Your task to perform on an android device: turn on the 24-hour format for clock Image 0: 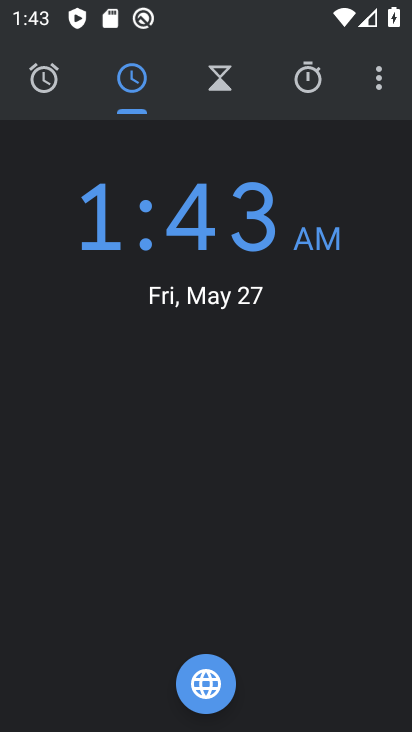
Step 0: click (371, 88)
Your task to perform on an android device: turn on the 24-hour format for clock Image 1: 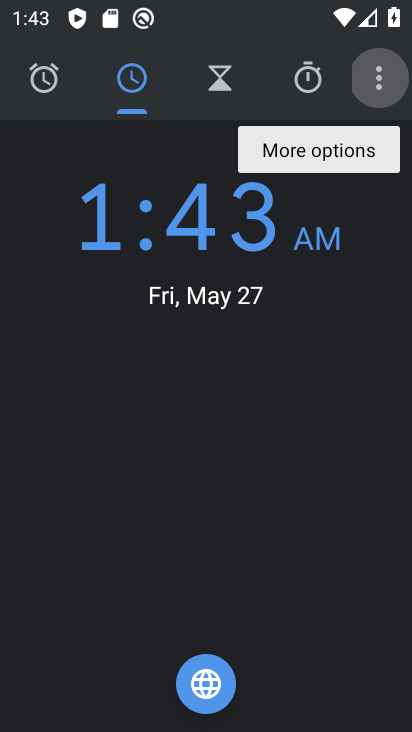
Step 1: click (371, 88)
Your task to perform on an android device: turn on the 24-hour format for clock Image 2: 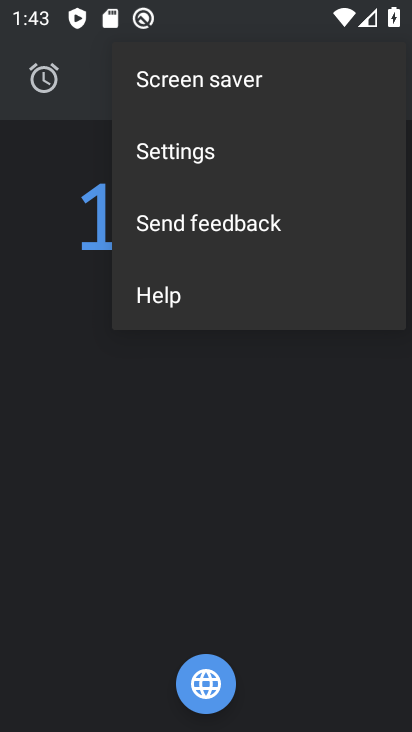
Step 2: click (294, 155)
Your task to perform on an android device: turn on the 24-hour format for clock Image 3: 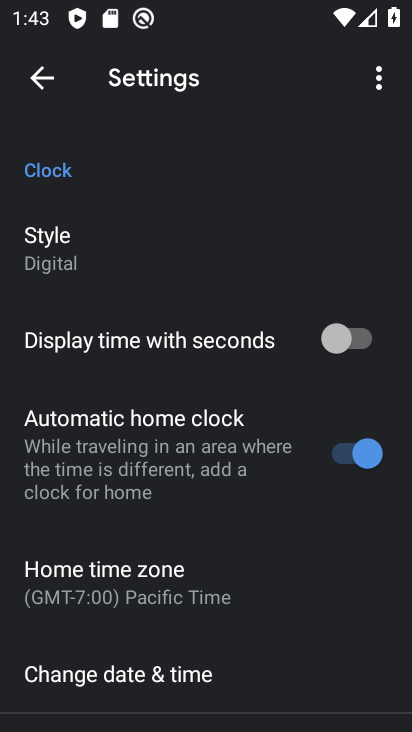
Step 3: click (216, 692)
Your task to perform on an android device: turn on the 24-hour format for clock Image 4: 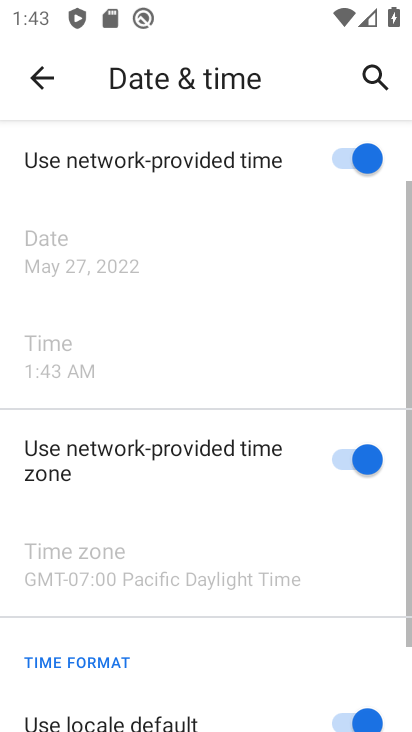
Step 4: drag from (91, 667) to (222, 184)
Your task to perform on an android device: turn on the 24-hour format for clock Image 5: 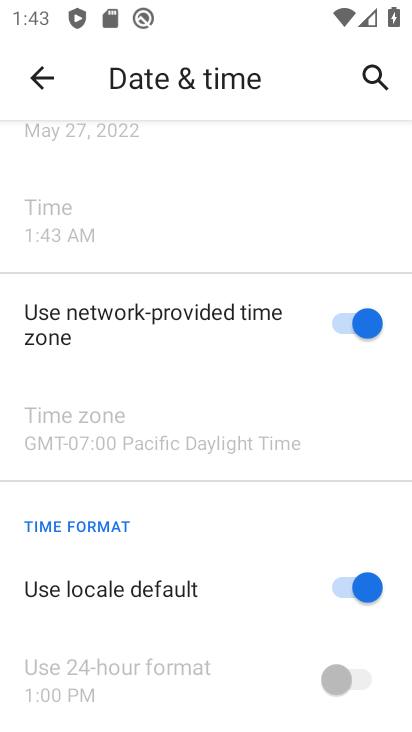
Step 5: click (334, 590)
Your task to perform on an android device: turn on the 24-hour format for clock Image 6: 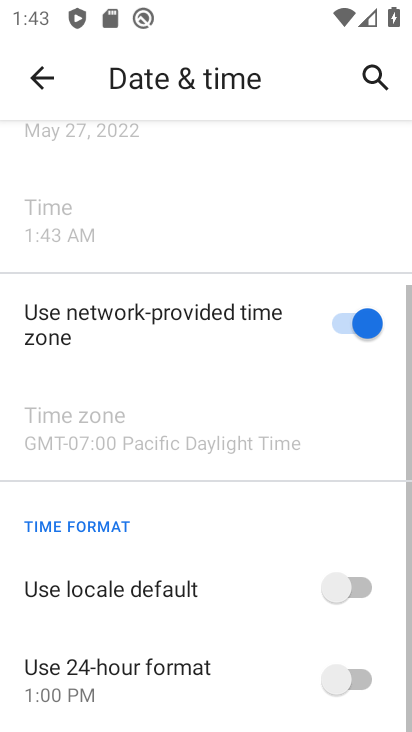
Step 6: click (377, 685)
Your task to perform on an android device: turn on the 24-hour format for clock Image 7: 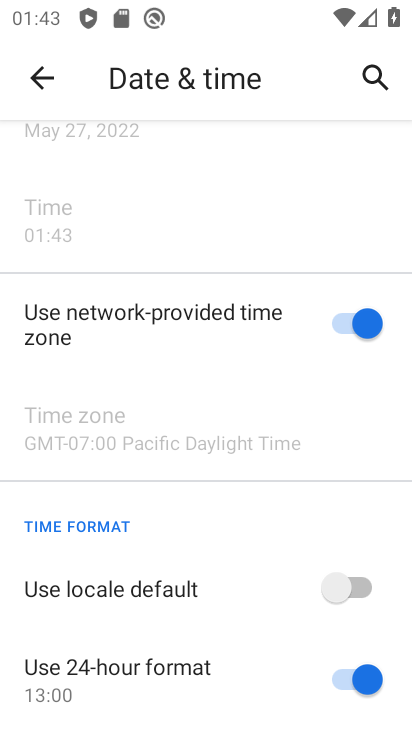
Step 7: task complete